Your task to perform on an android device: turn on javascript in the chrome app Image 0: 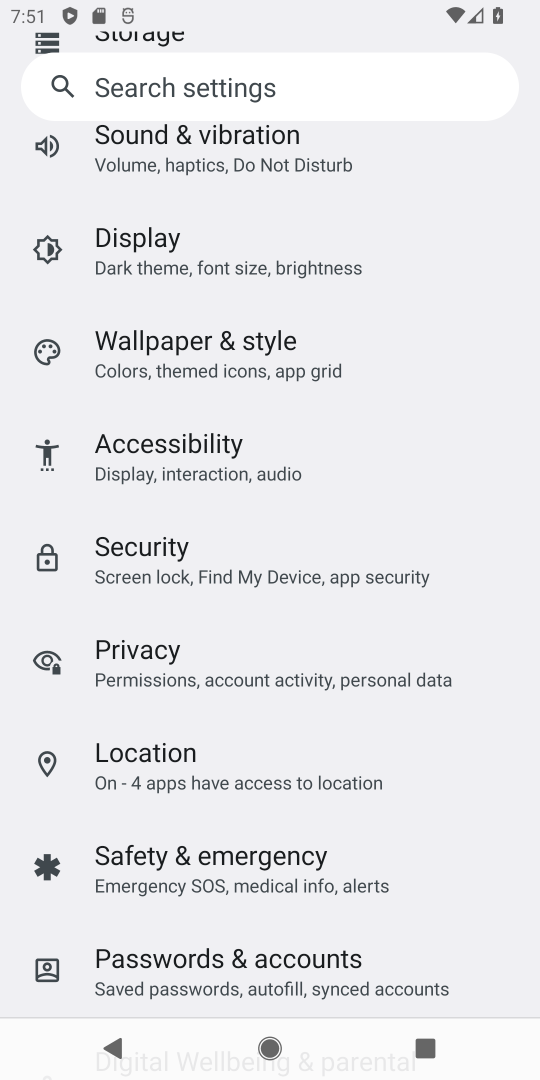
Step 0: press back button
Your task to perform on an android device: turn on javascript in the chrome app Image 1: 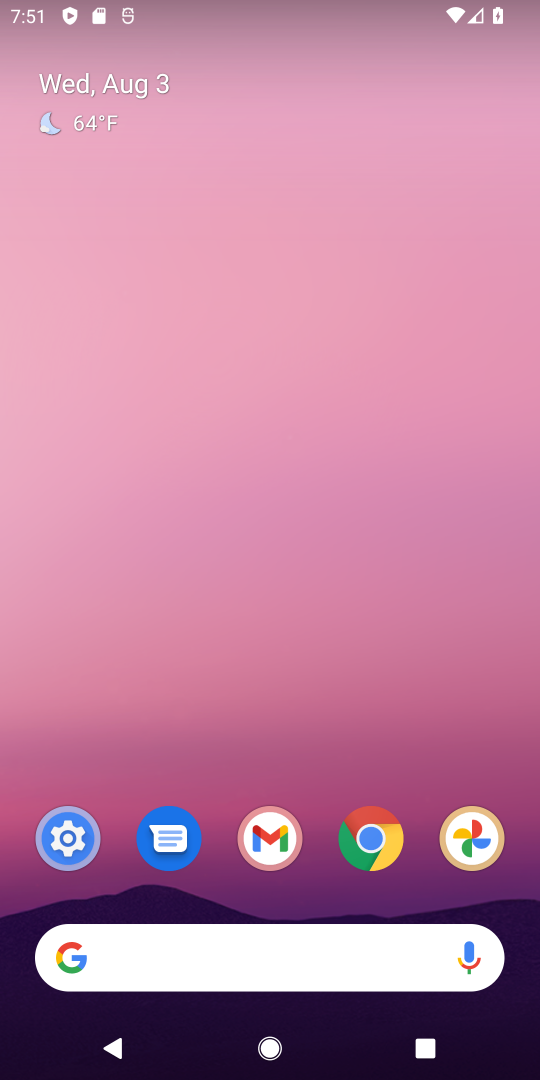
Step 1: press back button
Your task to perform on an android device: turn on javascript in the chrome app Image 2: 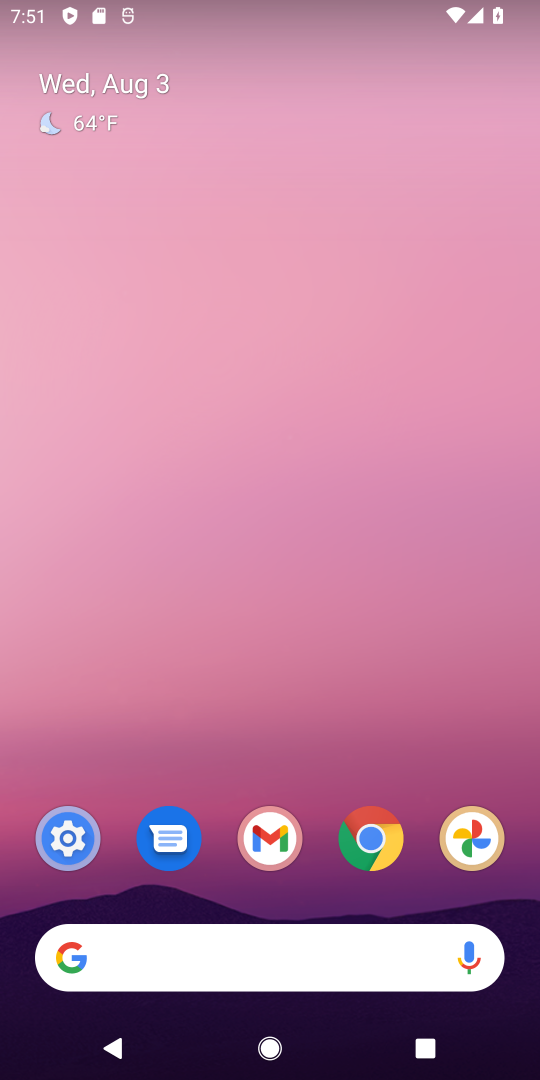
Step 2: click (382, 824)
Your task to perform on an android device: turn on javascript in the chrome app Image 3: 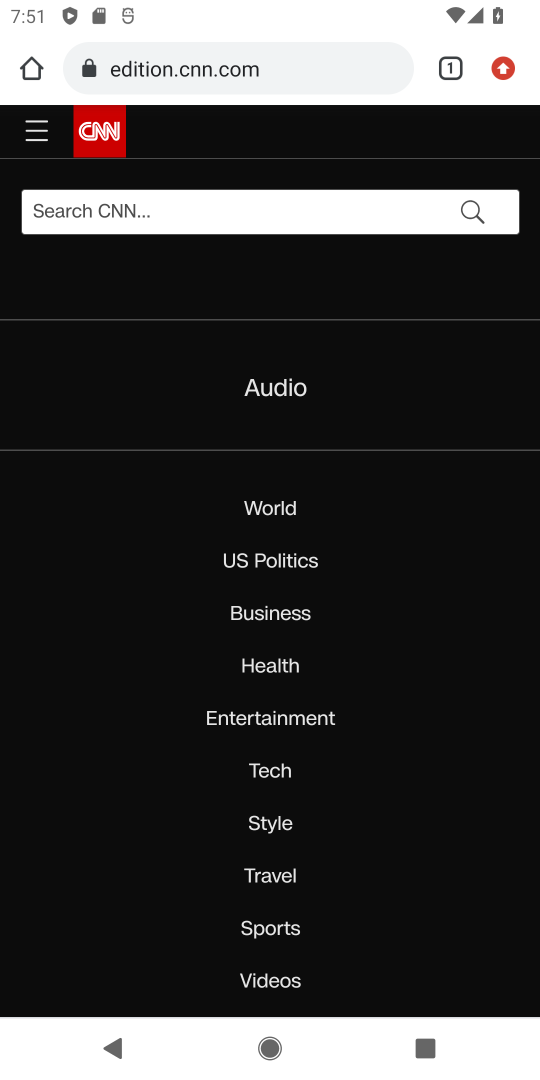
Step 3: click (503, 69)
Your task to perform on an android device: turn on javascript in the chrome app Image 4: 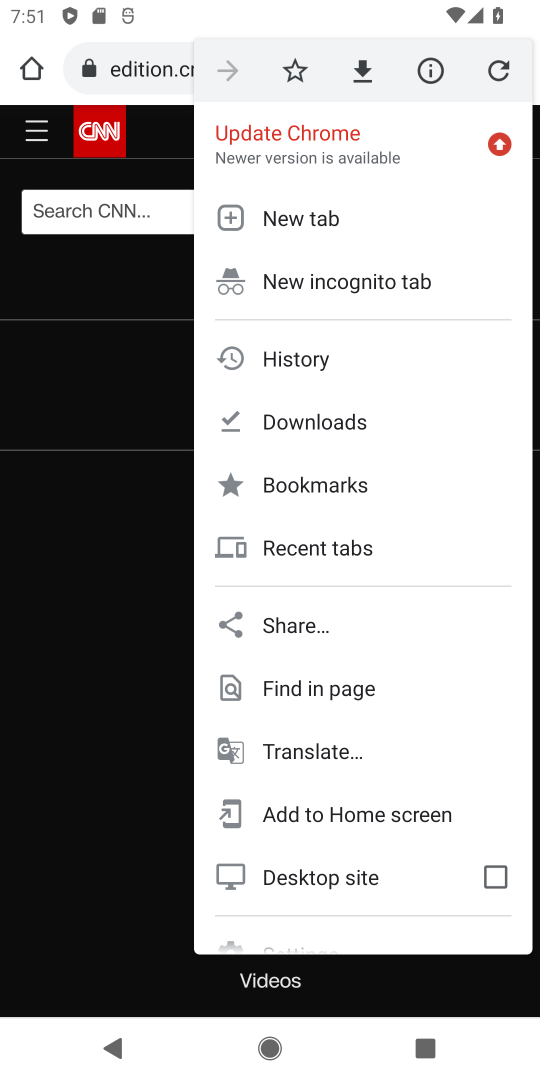
Step 4: drag from (314, 770) to (346, 469)
Your task to perform on an android device: turn on javascript in the chrome app Image 5: 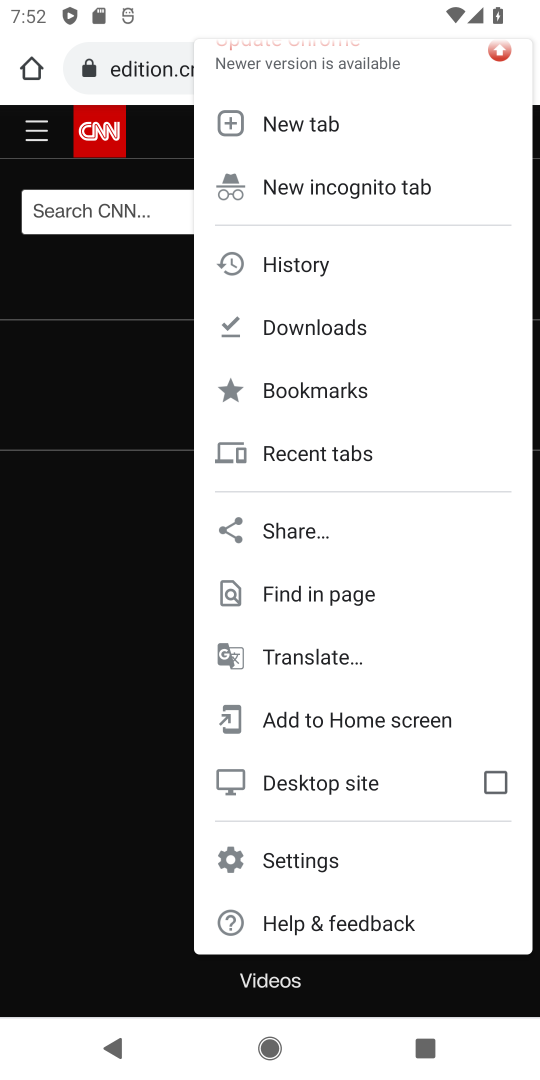
Step 5: click (274, 861)
Your task to perform on an android device: turn on javascript in the chrome app Image 6: 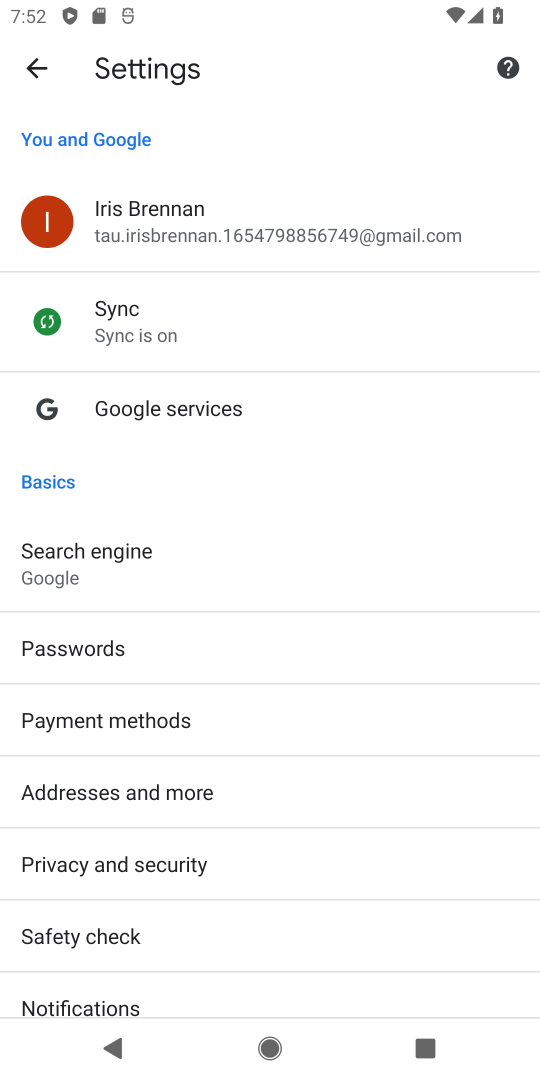
Step 6: drag from (135, 921) to (135, 581)
Your task to perform on an android device: turn on javascript in the chrome app Image 7: 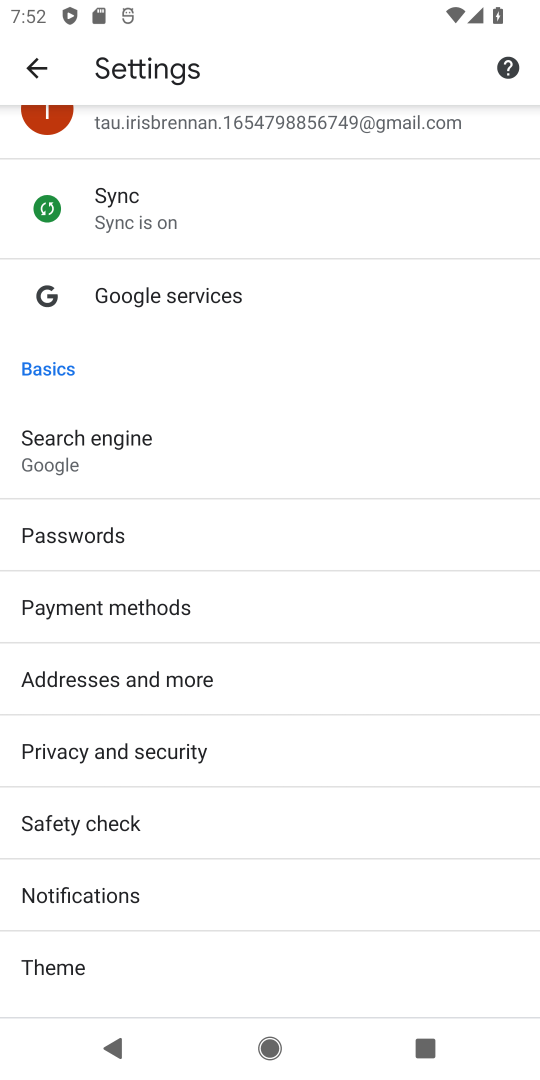
Step 7: drag from (102, 850) to (124, 628)
Your task to perform on an android device: turn on javascript in the chrome app Image 8: 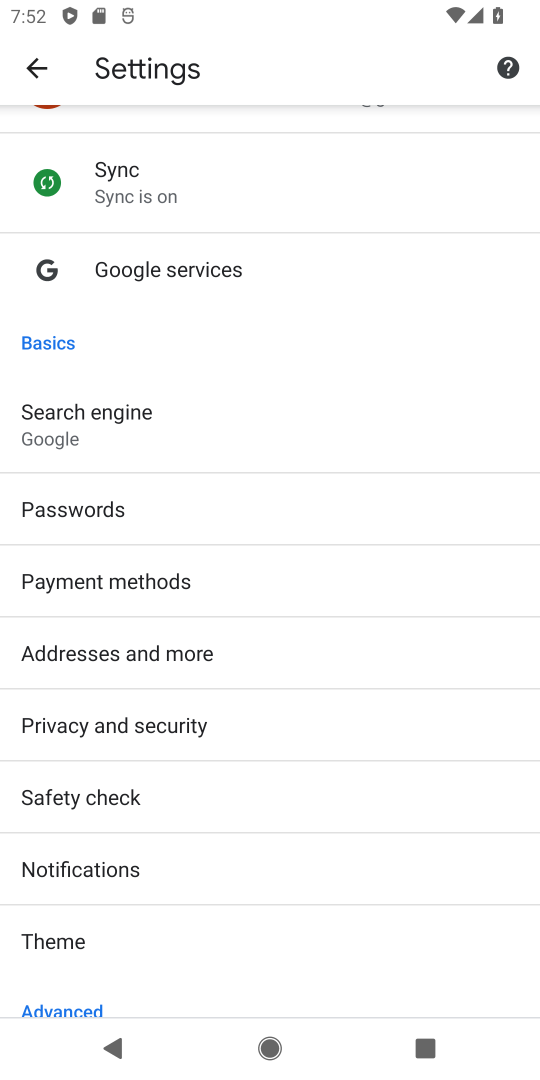
Step 8: drag from (121, 910) to (141, 455)
Your task to perform on an android device: turn on javascript in the chrome app Image 9: 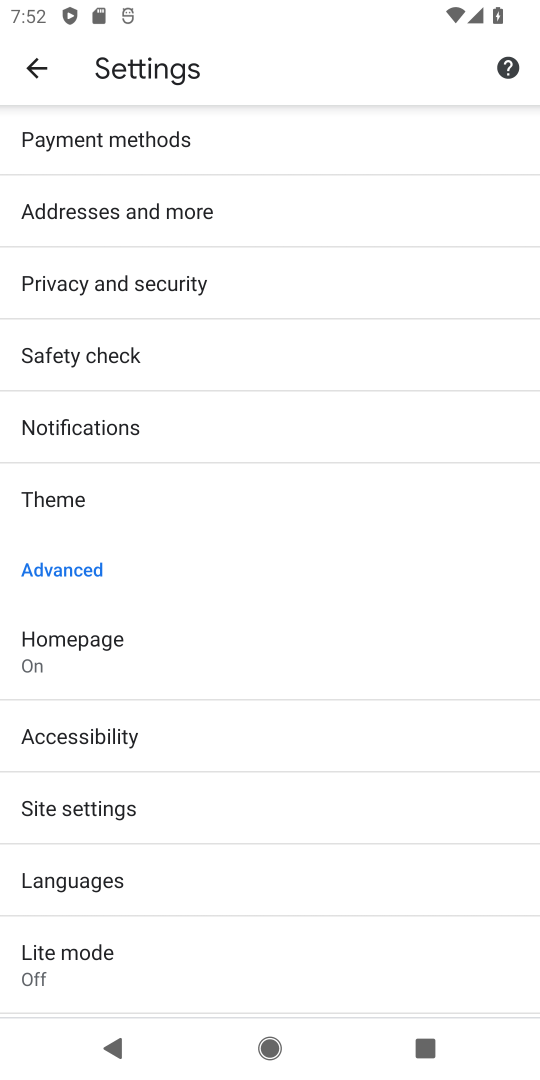
Step 9: drag from (336, 871) to (291, 404)
Your task to perform on an android device: turn on javascript in the chrome app Image 10: 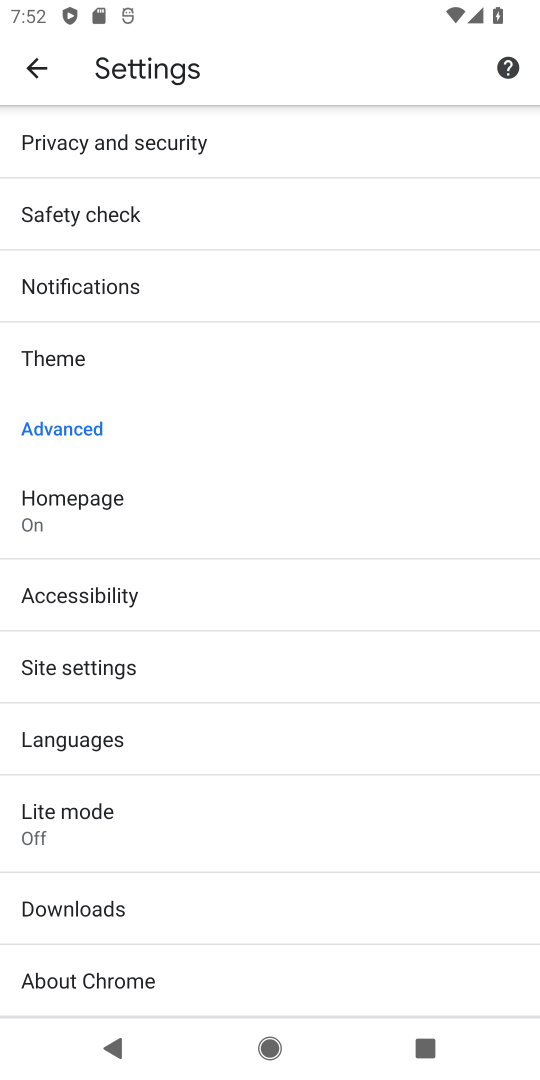
Step 10: click (96, 664)
Your task to perform on an android device: turn on javascript in the chrome app Image 11: 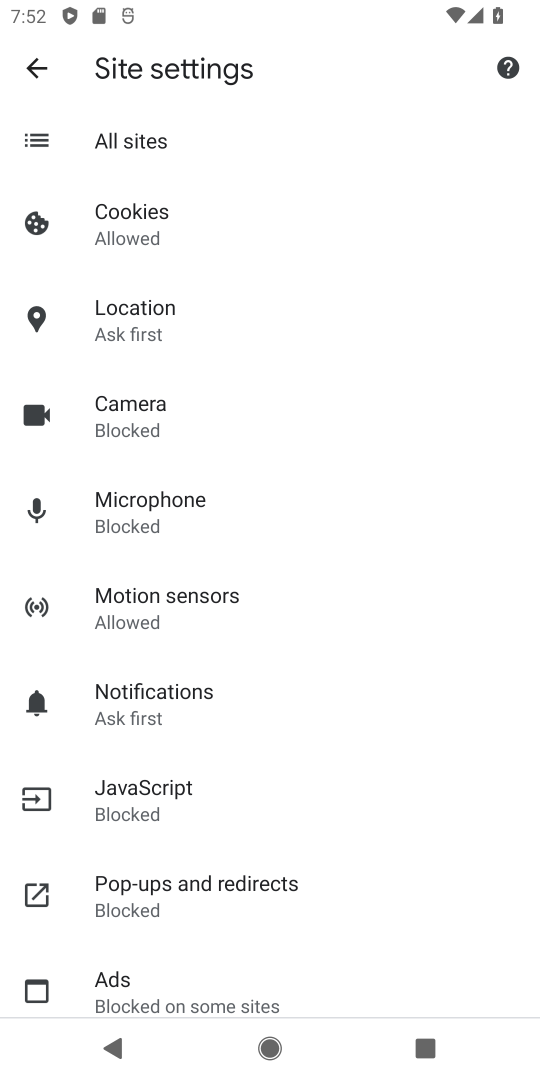
Step 11: click (126, 806)
Your task to perform on an android device: turn on javascript in the chrome app Image 12: 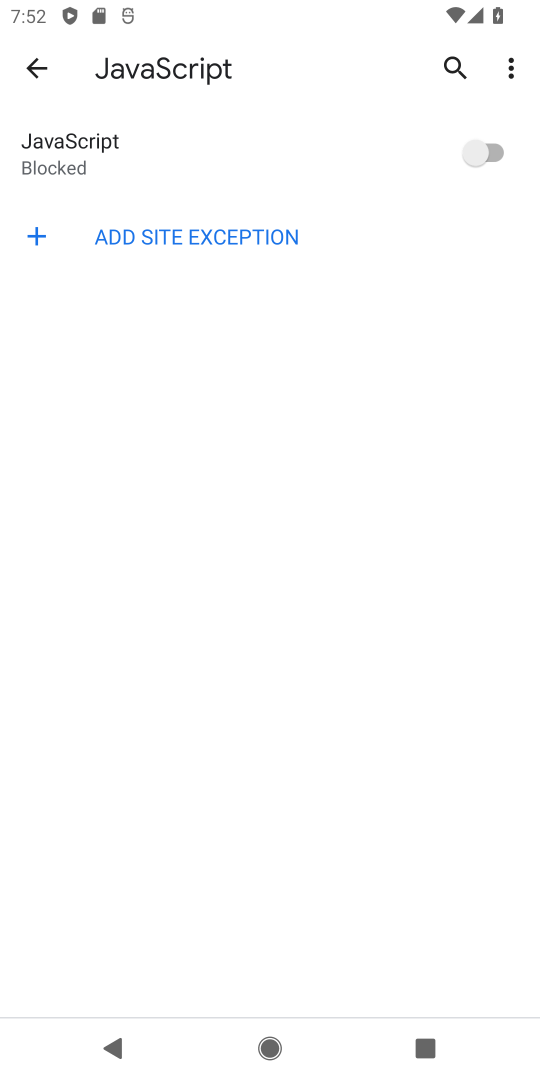
Step 12: click (486, 158)
Your task to perform on an android device: turn on javascript in the chrome app Image 13: 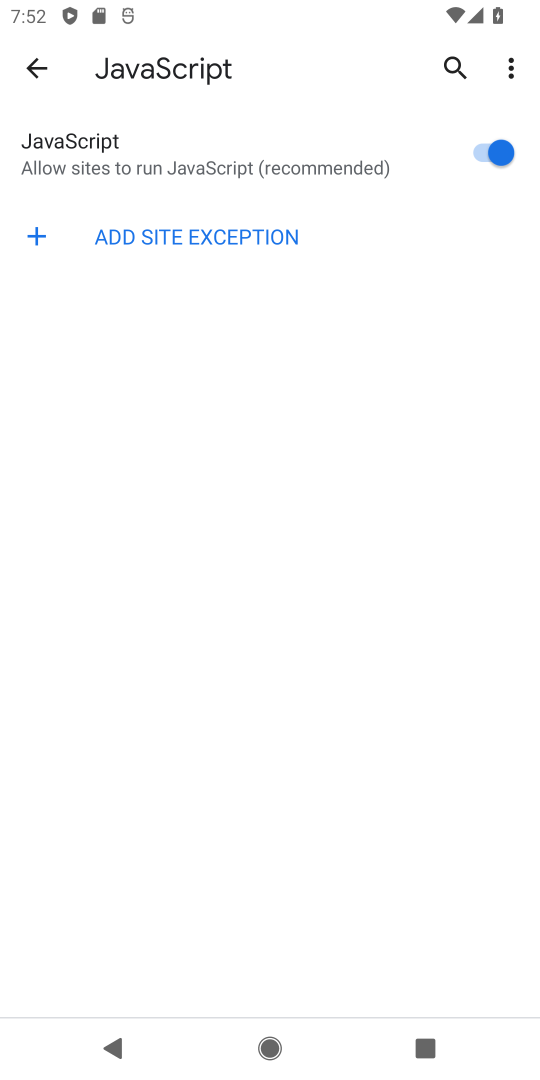
Step 13: task complete